Your task to perform on an android device: What is the recent news? Image 0: 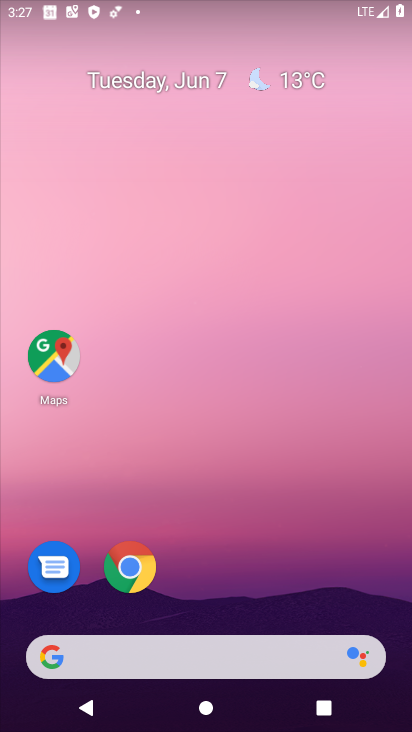
Step 0: click (250, 650)
Your task to perform on an android device: What is the recent news? Image 1: 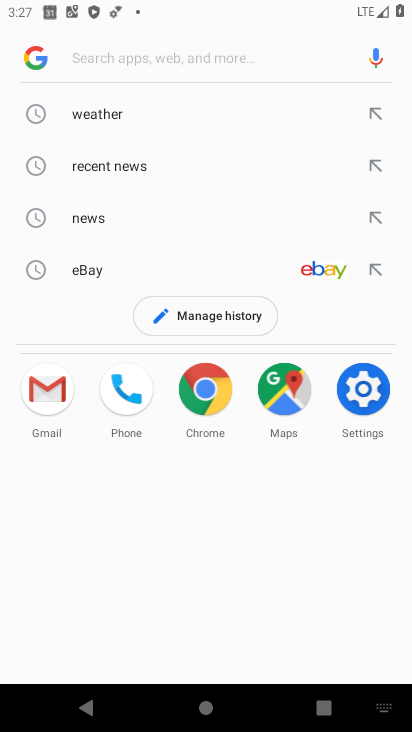
Step 1: click (164, 173)
Your task to perform on an android device: What is the recent news? Image 2: 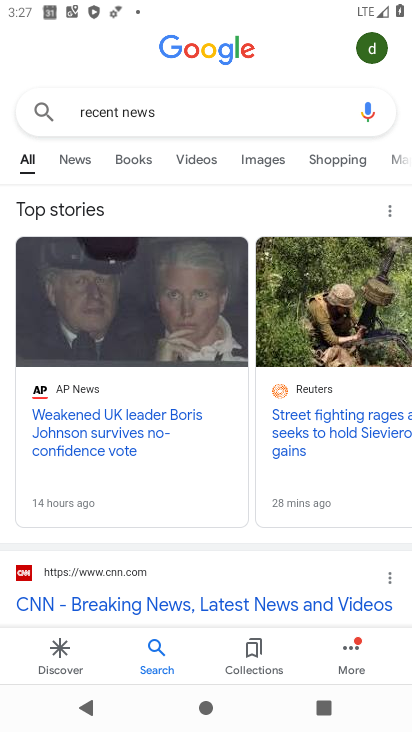
Step 2: task complete